Your task to perform on an android device: Search for Italian restaurants on Maps Image 0: 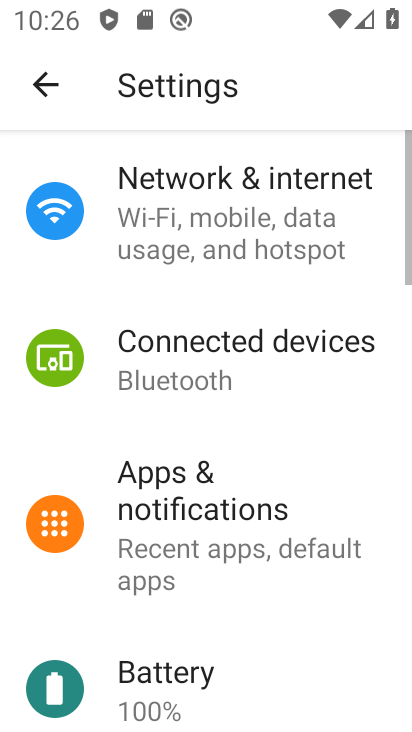
Step 0: press home button
Your task to perform on an android device: Search for Italian restaurants on Maps Image 1: 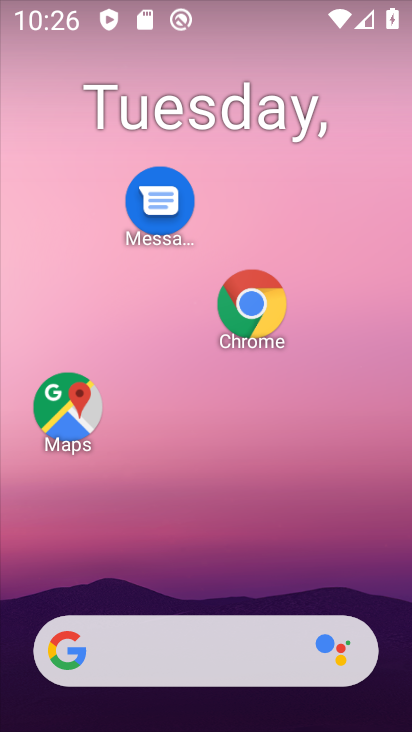
Step 1: drag from (236, 605) to (267, 80)
Your task to perform on an android device: Search for Italian restaurants on Maps Image 2: 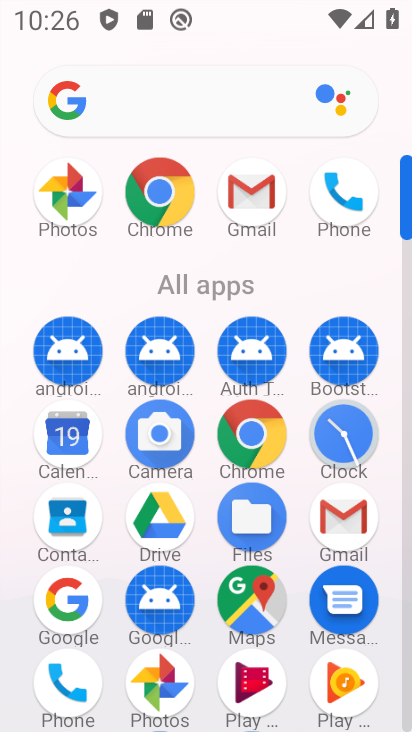
Step 2: click (250, 596)
Your task to perform on an android device: Search for Italian restaurants on Maps Image 3: 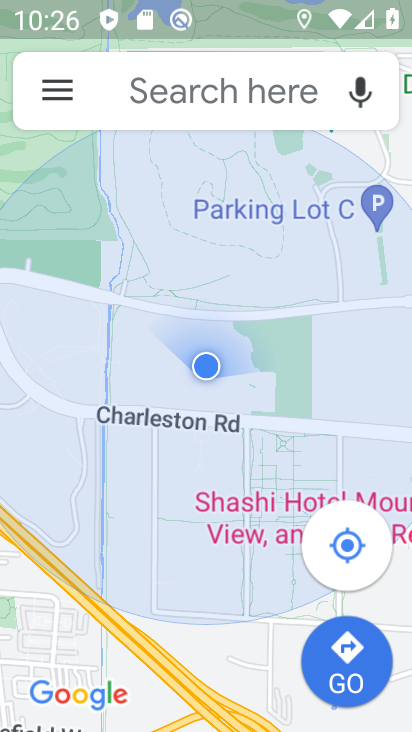
Step 3: click (57, 89)
Your task to perform on an android device: Search for Italian restaurants on Maps Image 4: 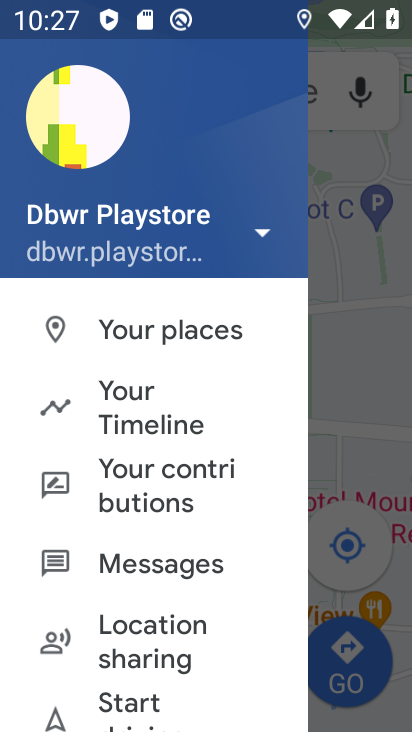
Step 4: click (343, 251)
Your task to perform on an android device: Search for Italian restaurants on Maps Image 5: 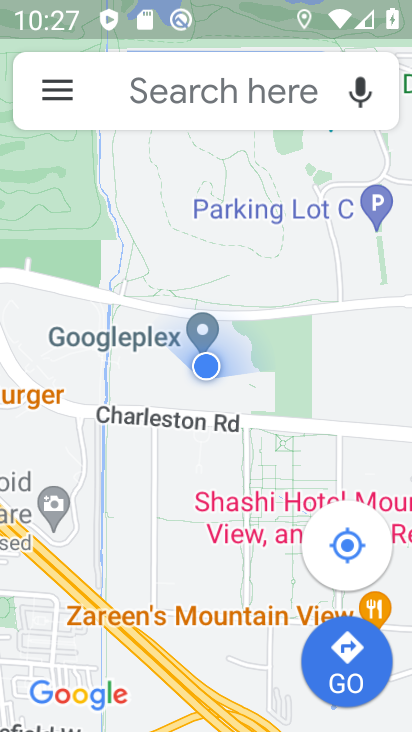
Step 5: click (234, 78)
Your task to perform on an android device: Search for Italian restaurants on Maps Image 6: 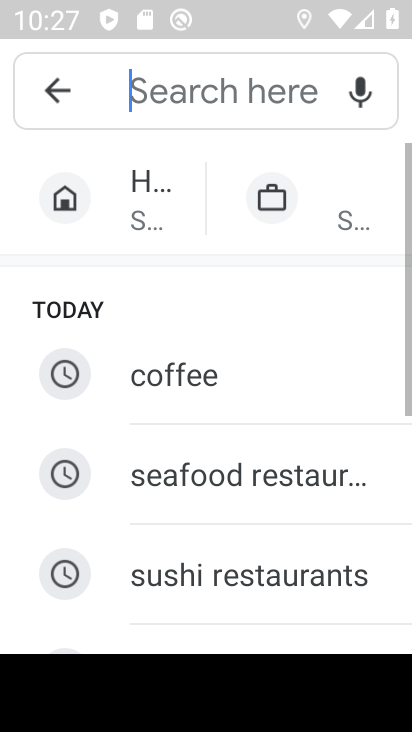
Step 6: type " Italian restaurants "
Your task to perform on an android device: Search for Italian restaurants on Maps Image 7: 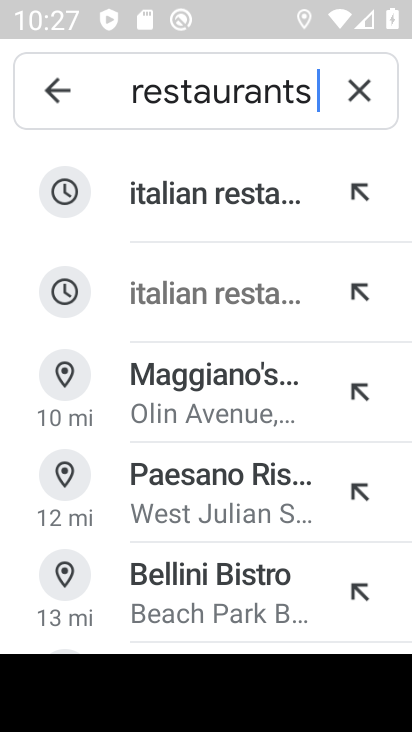
Step 7: click (206, 168)
Your task to perform on an android device: Search for Italian restaurants on Maps Image 8: 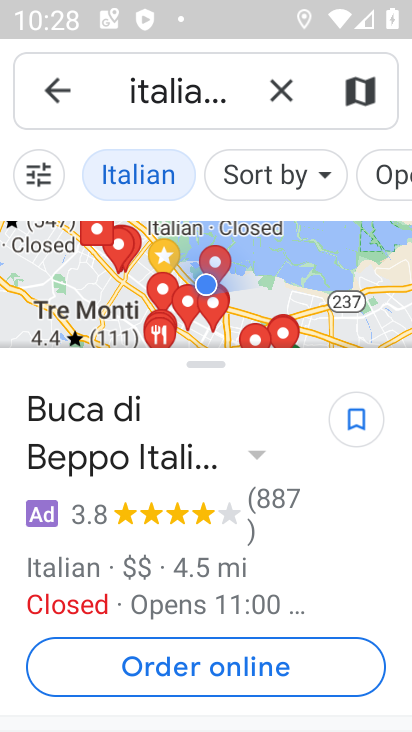
Step 8: task complete